Your task to perform on an android device: turn on wifi Image 0: 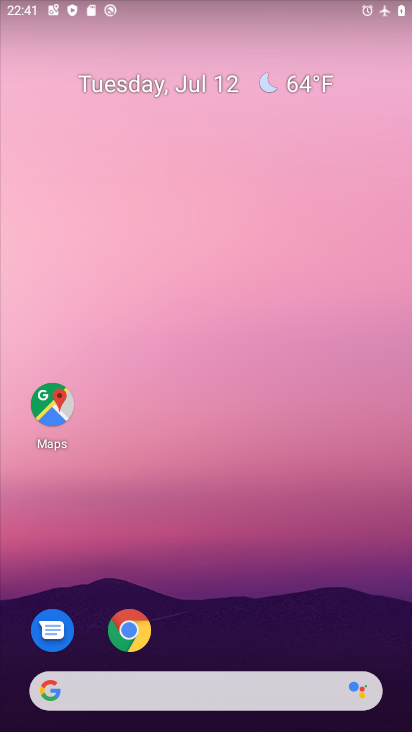
Step 0: drag from (212, 679) to (353, 517)
Your task to perform on an android device: turn on wifi Image 1: 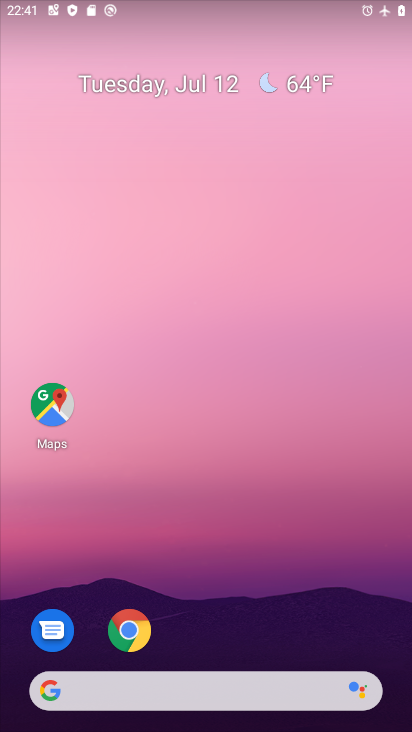
Step 1: click (188, 123)
Your task to perform on an android device: turn on wifi Image 2: 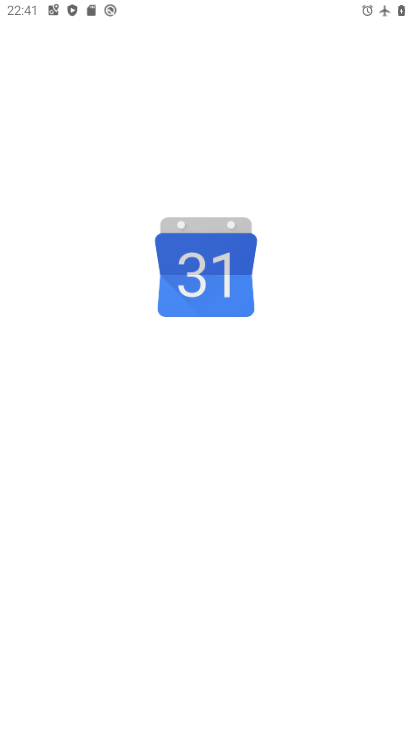
Step 2: drag from (251, 609) to (320, 24)
Your task to perform on an android device: turn on wifi Image 3: 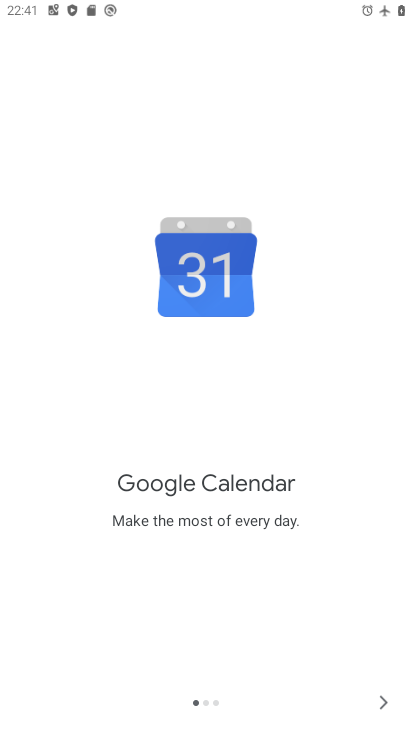
Step 3: press home button
Your task to perform on an android device: turn on wifi Image 4: 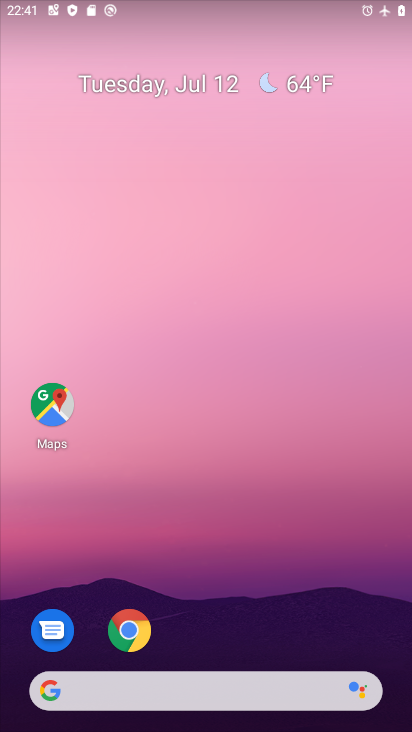
Step 4: drag from (196, 647) to (260, 0)
Your task to perform on an android device: turn on wifi Image 5: 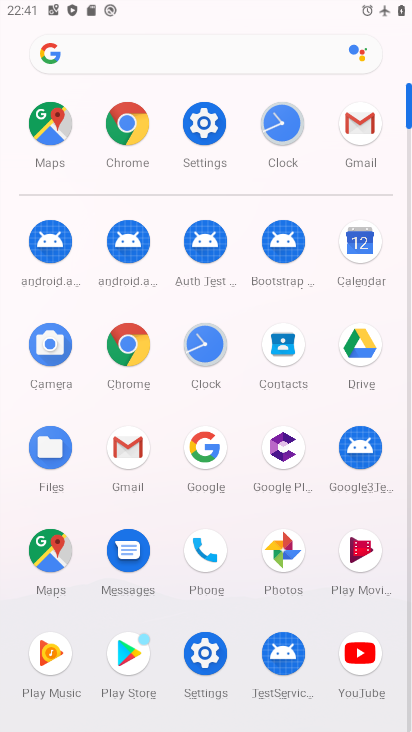
Step 5: click (208, 658)
Your task to perform on an android device: turn on wifi Image 6: 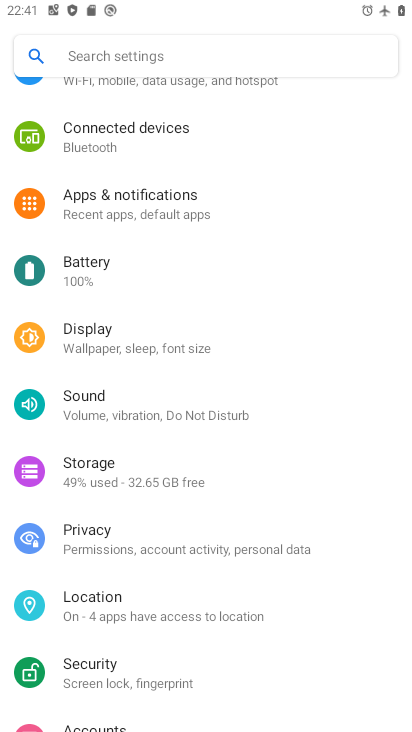
Step 6: click (149, 94)
Your task to perform on an android device: turn on wifi Image 7: 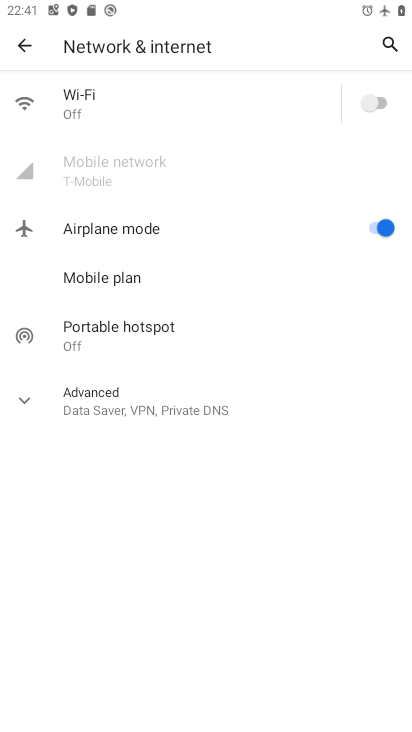
Step 7: click (95, 110)
Your task to perform on an android device: turn on wifi Image 8: 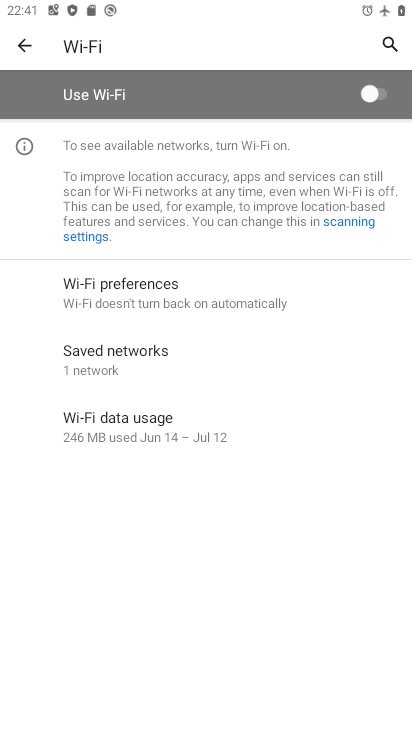
Step 8: click (373, 92)
Your task to perform on an android device: turn on wifi Image 9: 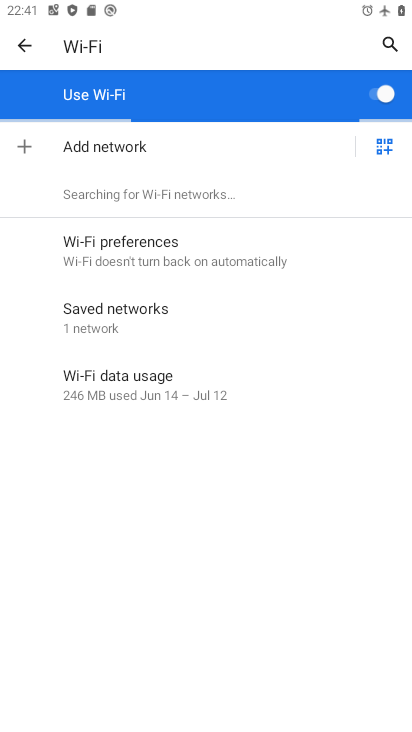
Step 9: task complete